Your task to perform on an android device: add a contact Image 0: 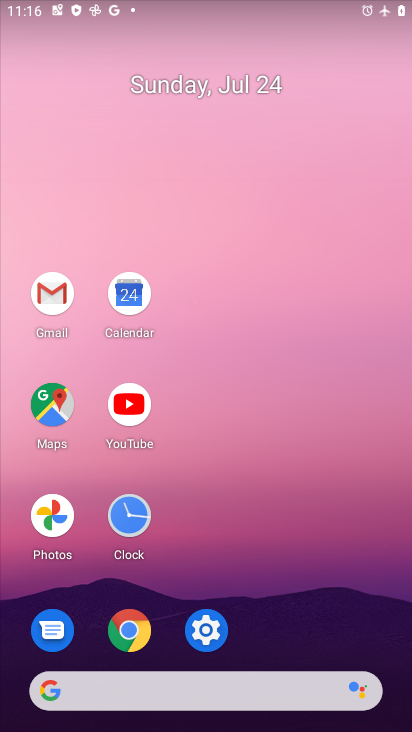
Step 0: drag from (273, 578) to (191, 15)
Your task to perform on an android device: add a contact Image 1: 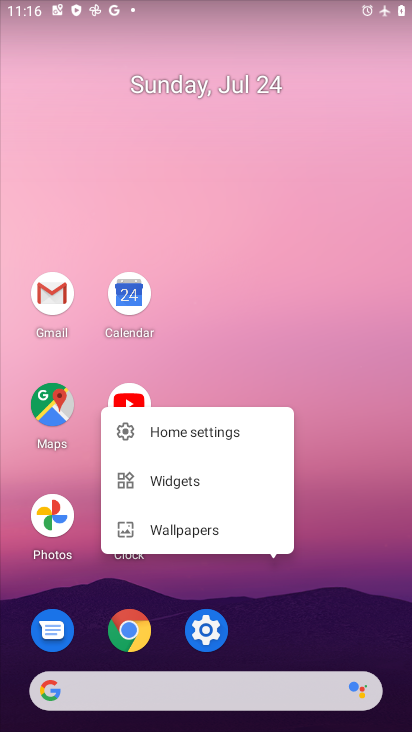
Step 1: click (312, 457)
Your task to perform on an android device: add a contact Image 2: 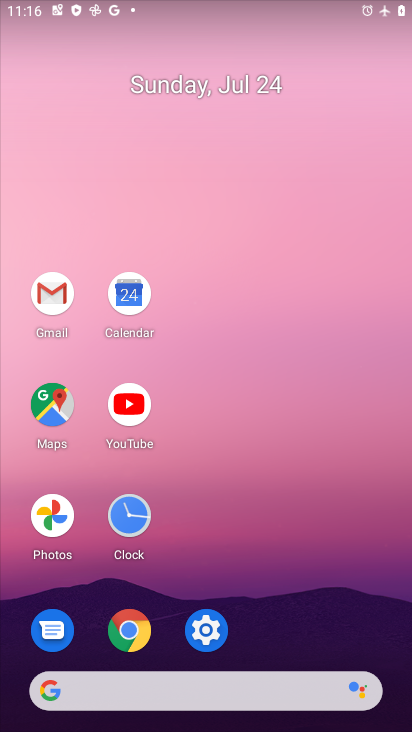
Step 2: drag from (294, 565) to (333, 26)
Your task to perform on an android device: add a contact Image 3: 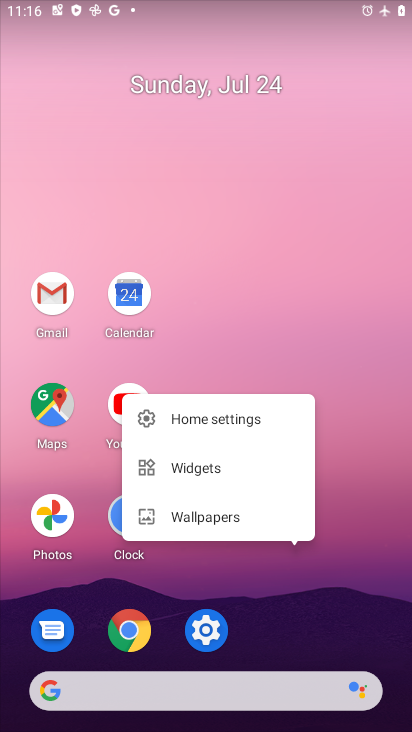
Step 3: click (259, 238)
Your task to perform on an android device: add a contact Image 4: 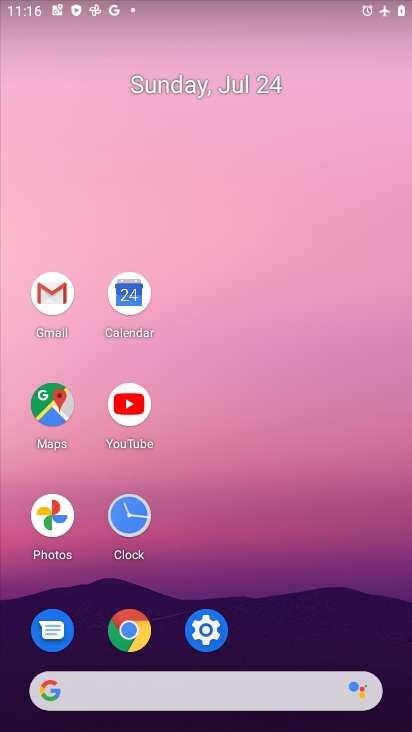
Step 4: drag from (221, 496) to (196, 1)
Your task to perform on an android device: add a contact Image 5: 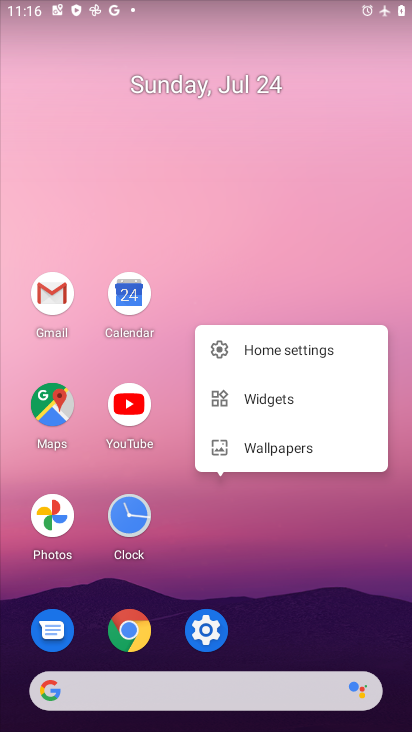
Step 5: click (207, 197)
Your task to perform on an android device: add a contact Image 6: 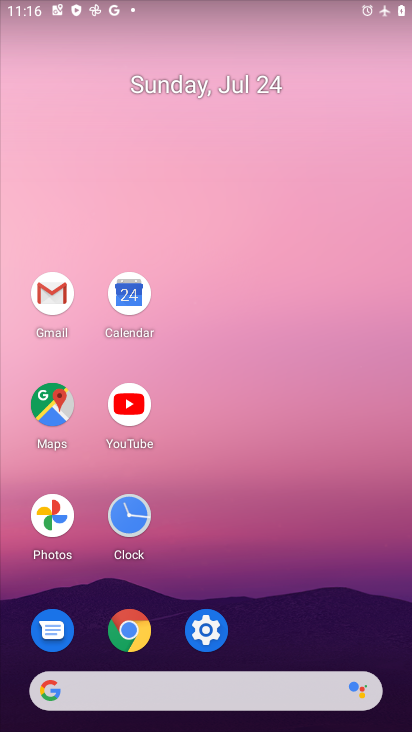
Step 6: click (207, 197)
Your task to perform on an android device: add a contact Image 7: 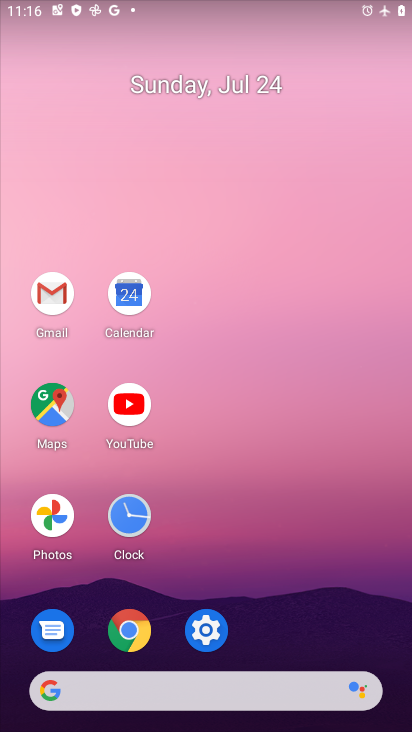
Step 7: drag from (276, 628) to (276, 170)
Your task to perform on an android device: add a contact Image 8: 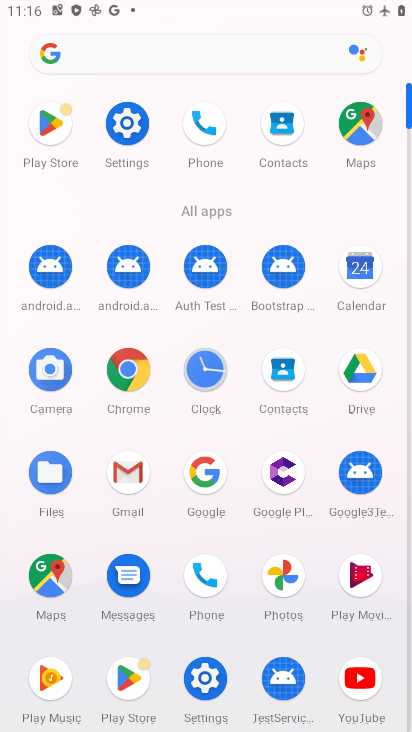
Step 8: click (280, 366)
Your task to perform on an android device: add a contact Image 9: 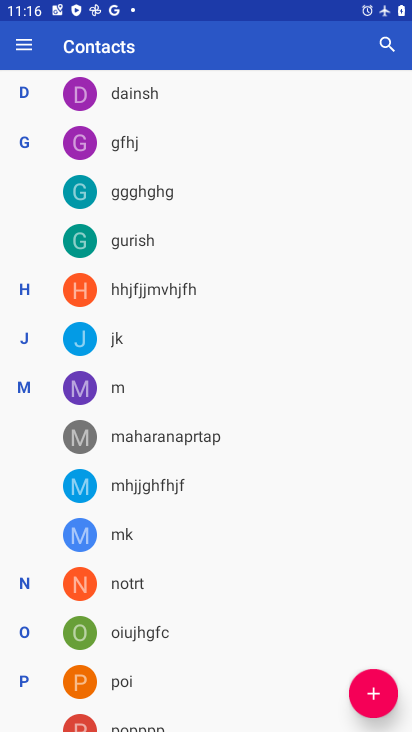
Step 9: click (371, 693)
Your task to perform on an android device: add a contact Image 10: 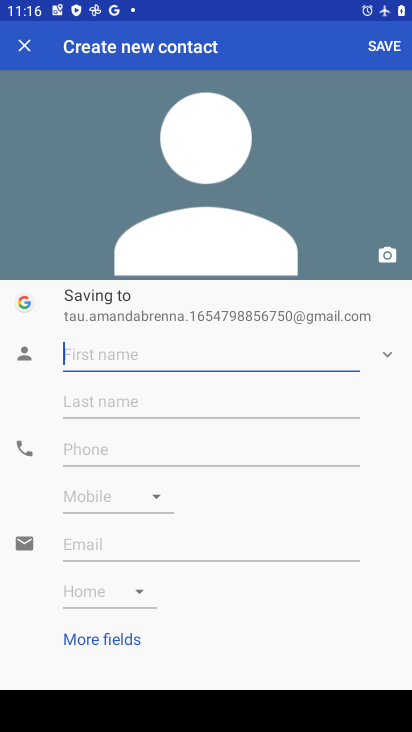
Step 10: type "dddddd"
Your task to perform on an android device: add a contact Image 11: 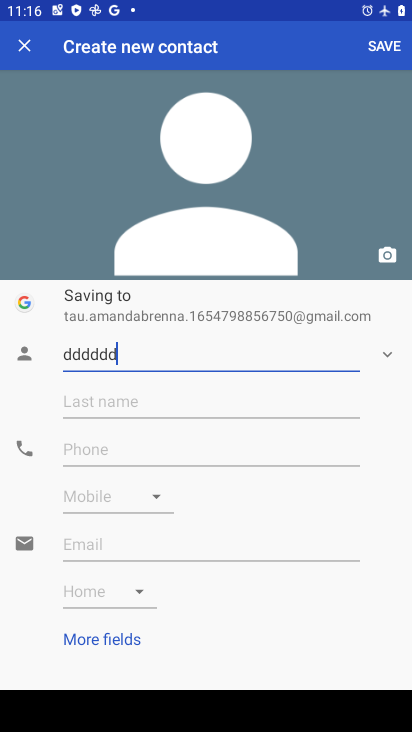
Step 11: click (166, 446)
Your task to perform on an android device: add a contact Image 12: 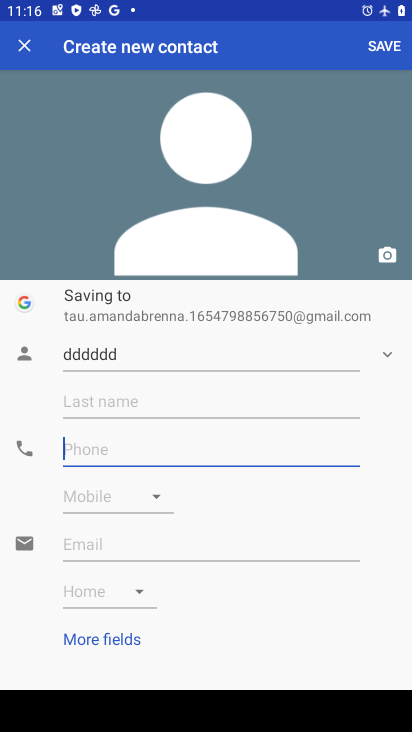
Step 12: type "121212"
Your task to perform on an android device: add a contact Image 13: 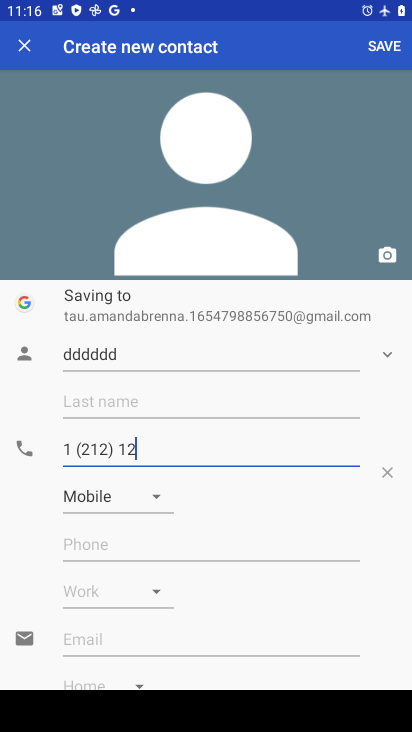
Step 13: click (384, 46)
Your task to perform on an android device: add a contact Image 14: 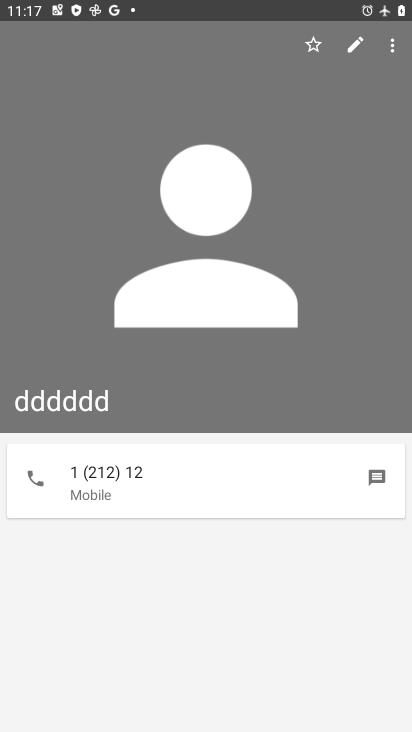
Step 14: task complete